Your task to perform on an android device: Go to privacy settings Image 0: 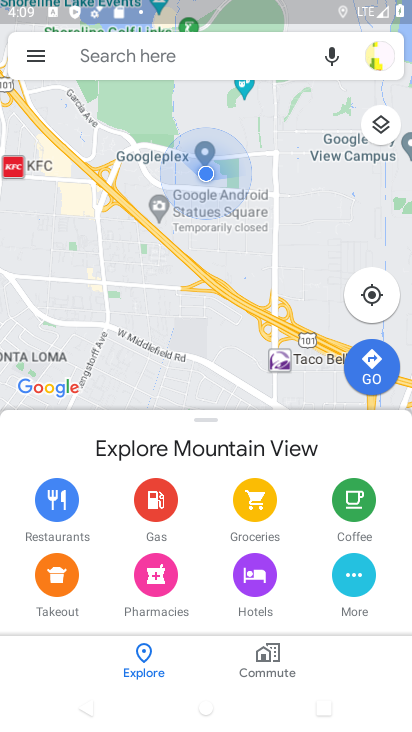
Step 0: press home button
Your task to perform on an android device: Go to privacy settings Image 1: 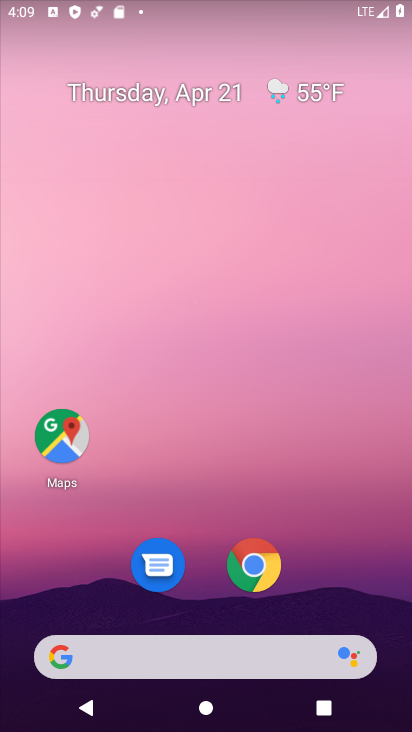
Step 1: click (261, 566)
Your task to perform on an android device: Go to privacy settings Image 2: 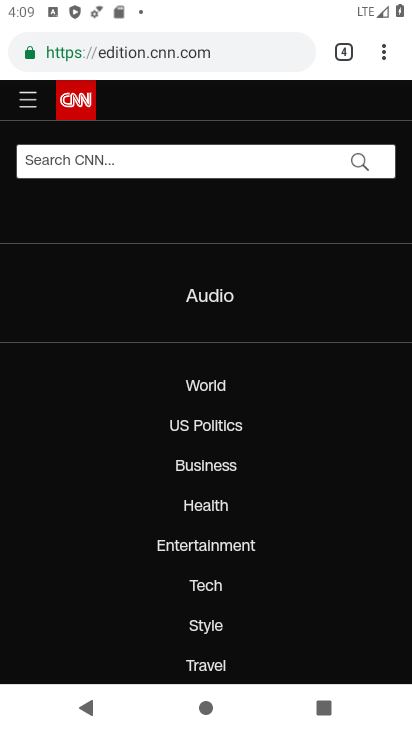
Step 2: click (383, 50)
Your task to perform on an android device: Go to privacy settings Image 3: 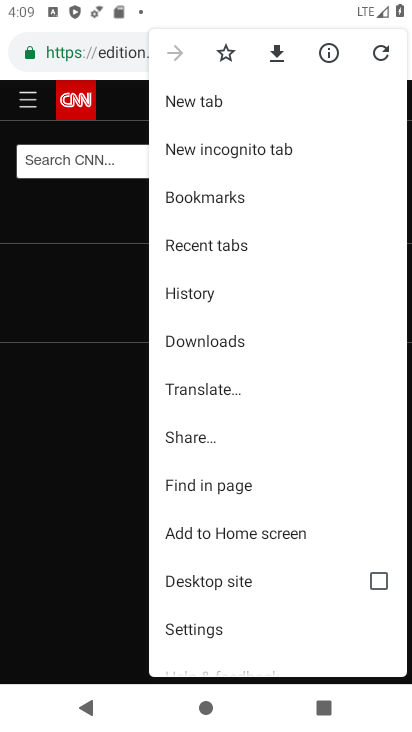
Step 3: click (253, 627)
Your task to perform on an android device: Go to privacy settings Image 4: 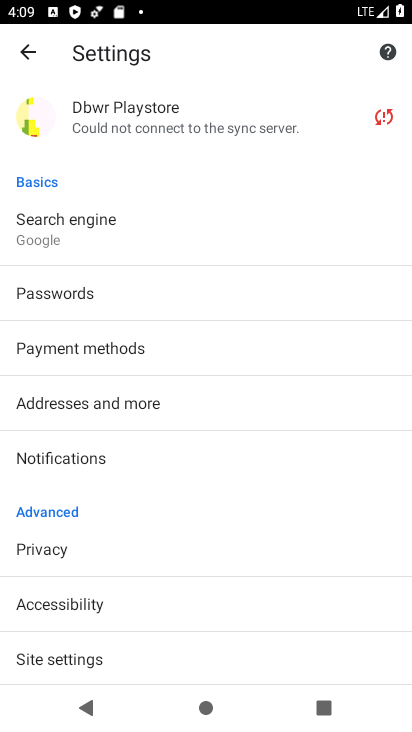
Step 4: click (182, 556)
Your task to perform on an android device: Go to privacy settings Image 5: 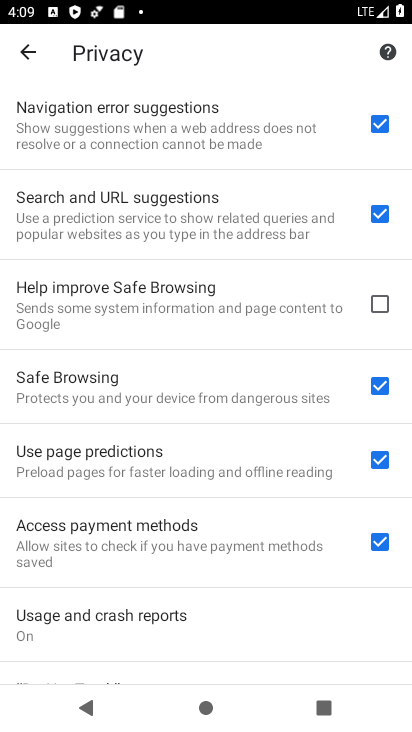
Step 5: task complete